Your task to perform on an android device: Open Reddit.com Image 0: 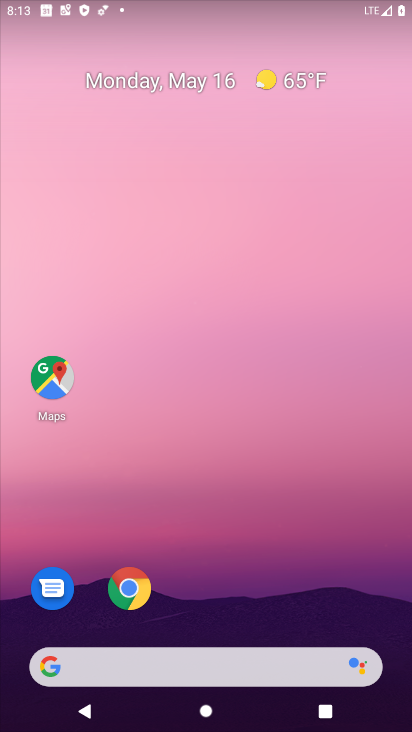
Step 0: drag from (269, 542) to (164, 34)
Your task to perform on an android device: Open Reddit.com Image 1: 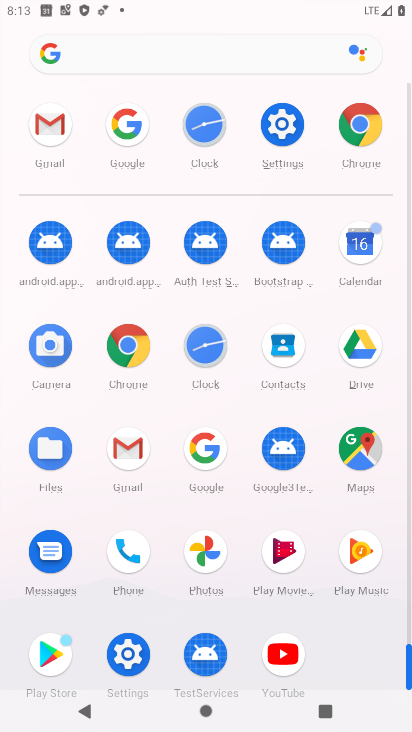
Step 1: drag from (10, 443) to (5, 156)
Your task to perform on an android device: Open Reddit.com Image 2: 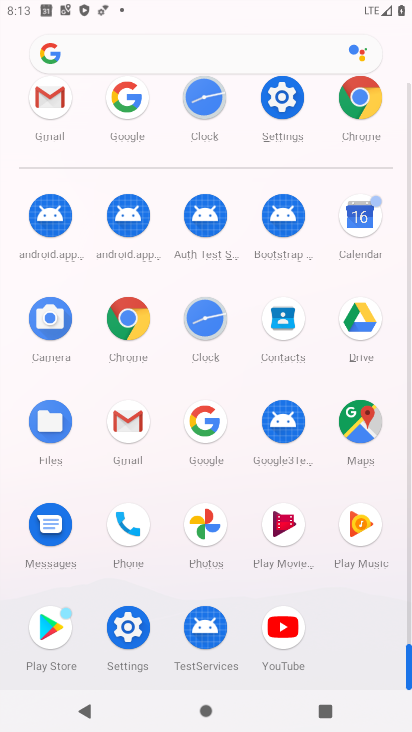
Step 2: click (125, 314)
Your task to perform on an android device: Open Reddit.com Image 3: 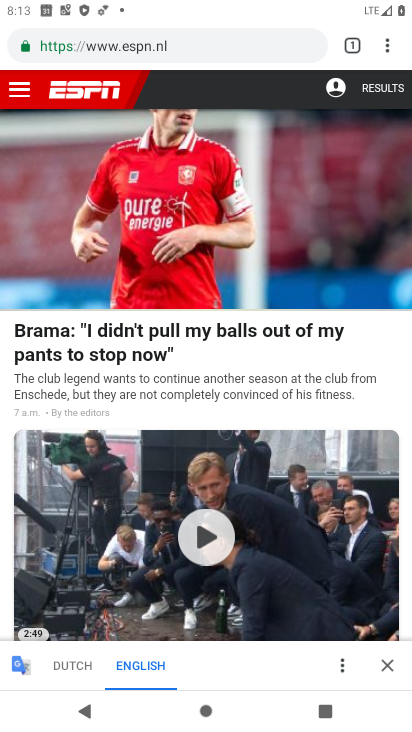
Step 3: click (136, 43)
Your task to perform on an android device: Open Reddit.com Image 4: 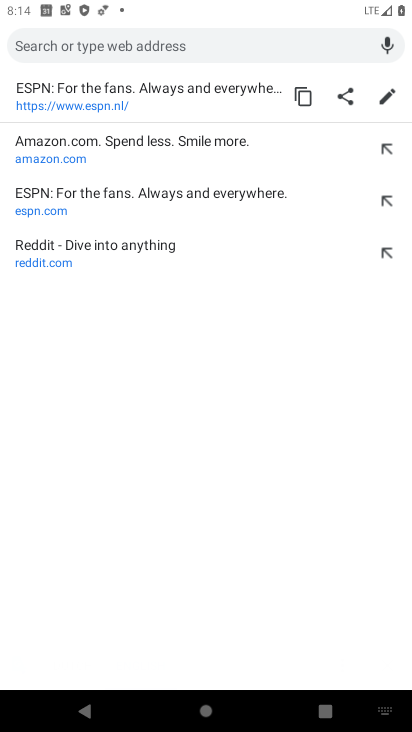
Step 4: type "Reddit.com"
Your task to perform on an android device: Open Reddit.com Image 5: 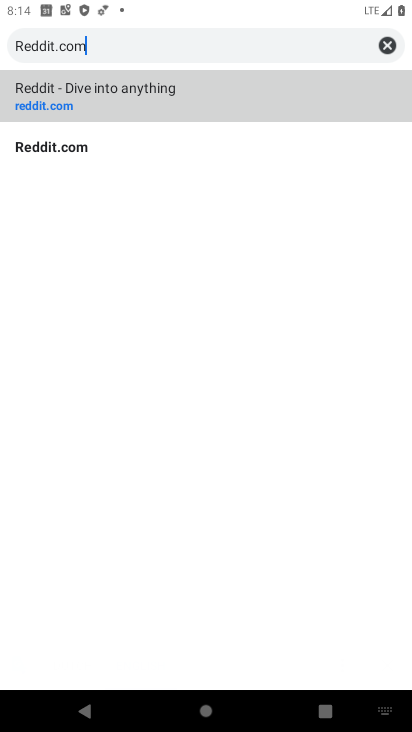
Step 5: type ""
Your task to perform on an android device: Open Reddit.com Image 6: 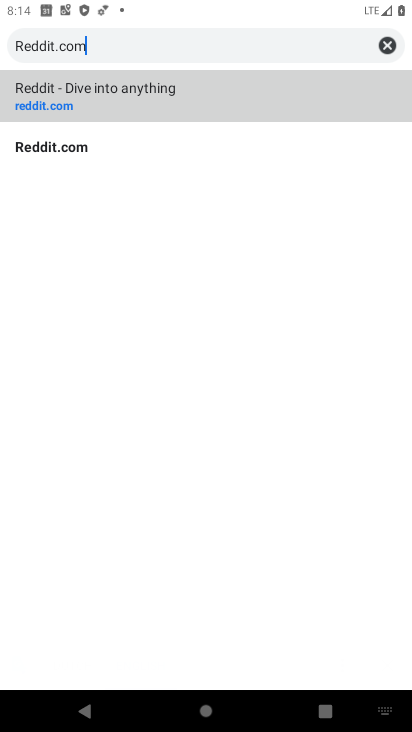
Step 6: click (88, 85)
Your task to perform on an android device: Open Reddit.com Image 7: 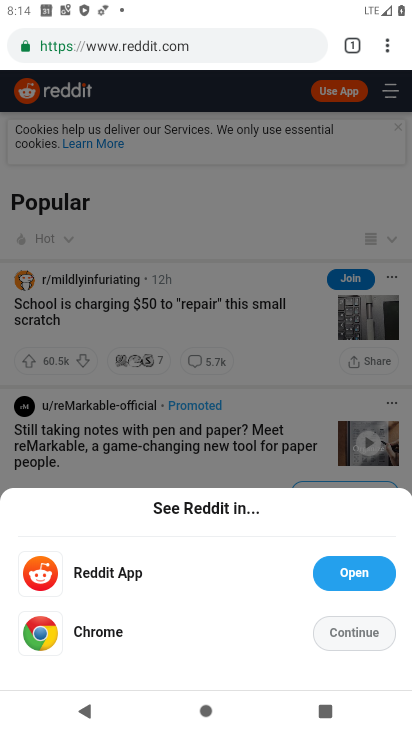
Step 7: task complete